Your task to perform on an android device: open app "Gmail" (install if not already installed) Image 0: 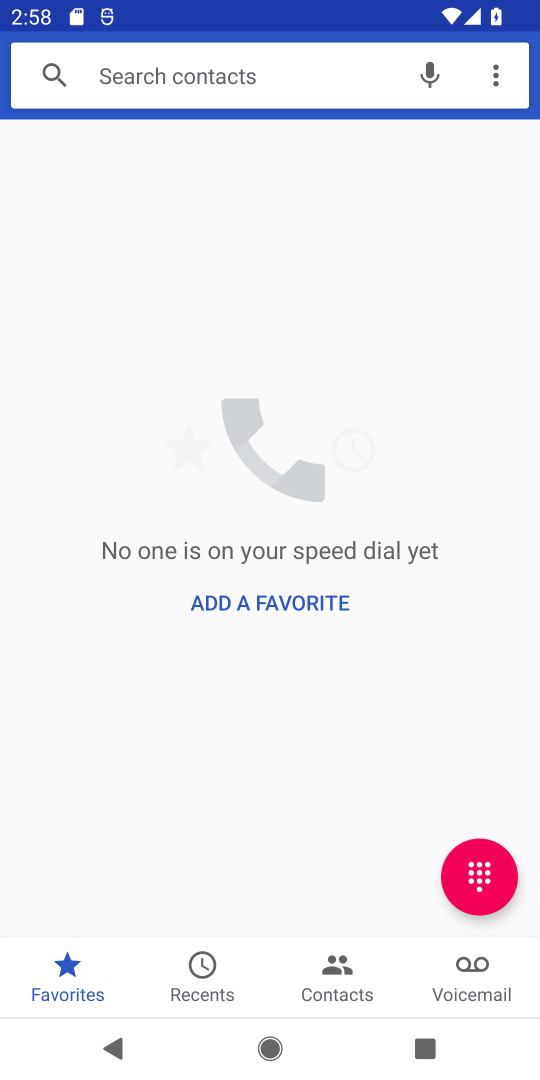
Step 0: press home button
Your task to perform on an android device: open app "Gmail" (install if not already installed) Image 1: 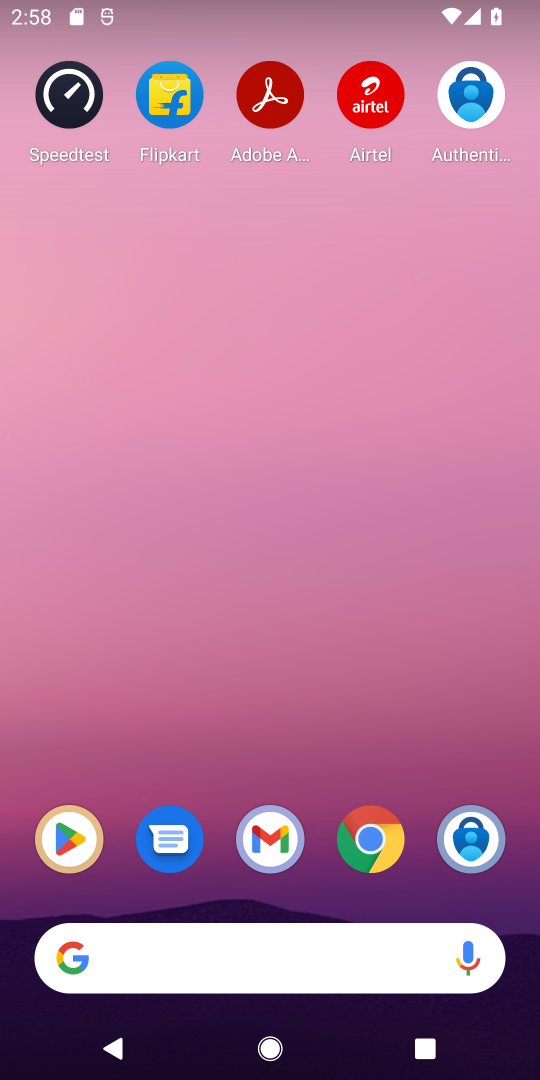
Step 1: click (267, 853)
Your task to perform on an android device: open app "Gmail" (install if not already installed) Image 2: 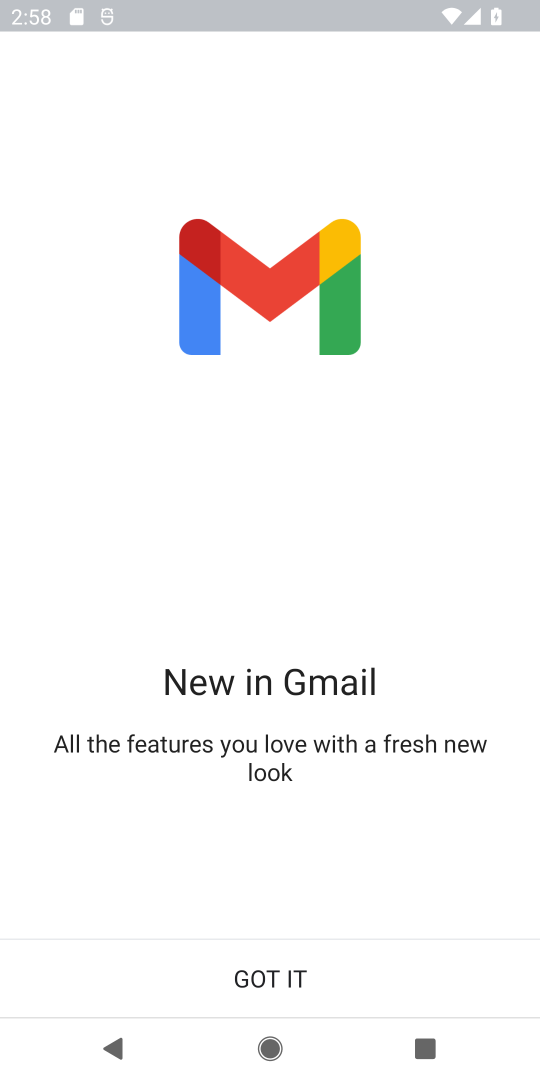
Step 2: task complete